Your task to perform on an android device: Open Chrome and go to settings Image 0: 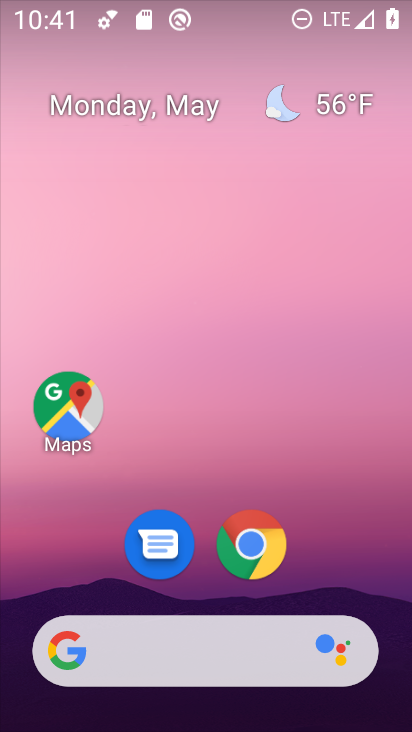
Step 0: click (252, 543)
Your task to perform on an android device: Open Chrome and go to settings Image 1: 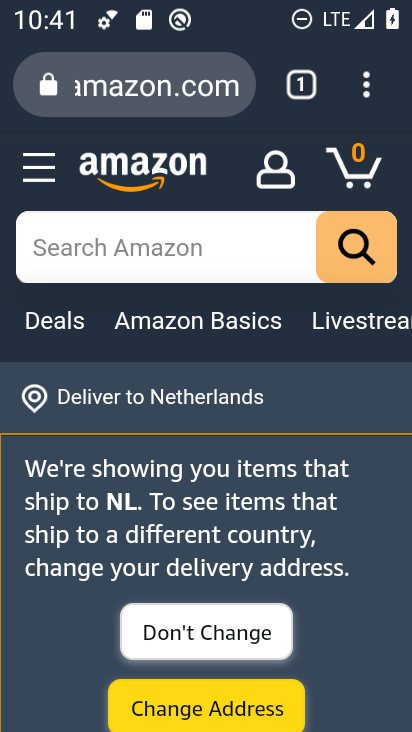
Step 1: click (366, 84)
Your task to perform on an android device: Open Chrome and go to settings Image 2: 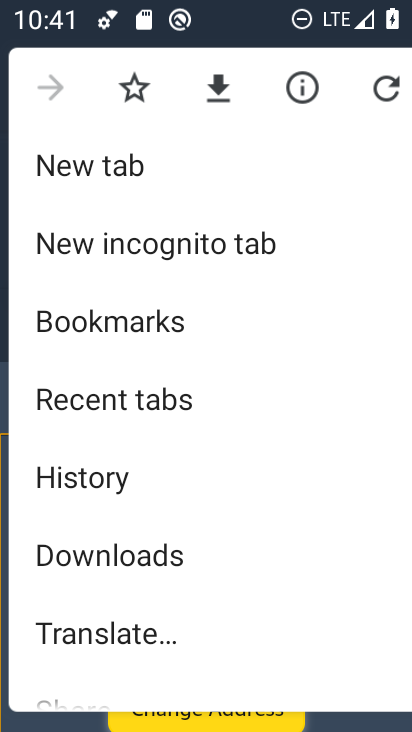
Step 2: drag from (168, 491) to (192, 337)
Your task to perform on an android device: Open Chrome and go to settings Image 3: 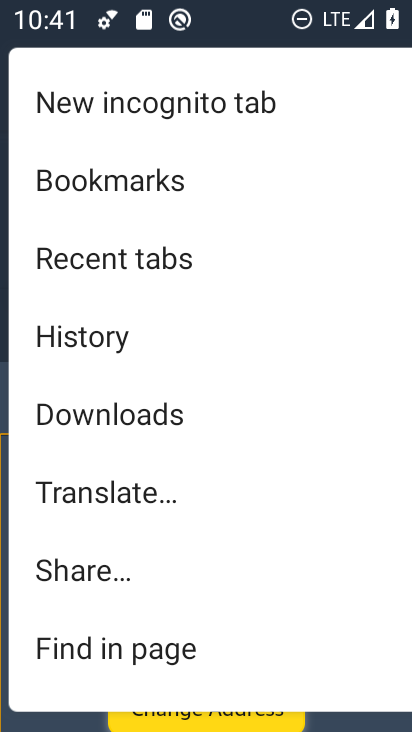
Step 3: drag from (135, 533) to (155, 440)
Your task to perform on an android device: Open Chrome and go to settings Image 4: 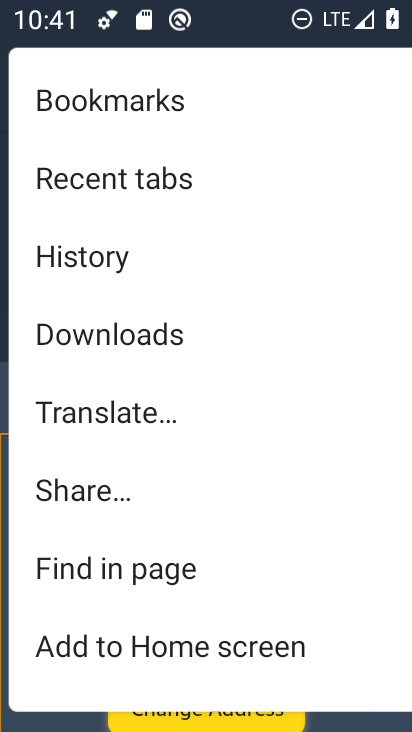
Step 4: drag from (96, 590) to (165, 468)
Your task to perform on an android device: Open Chrome and go to settings Image 5: 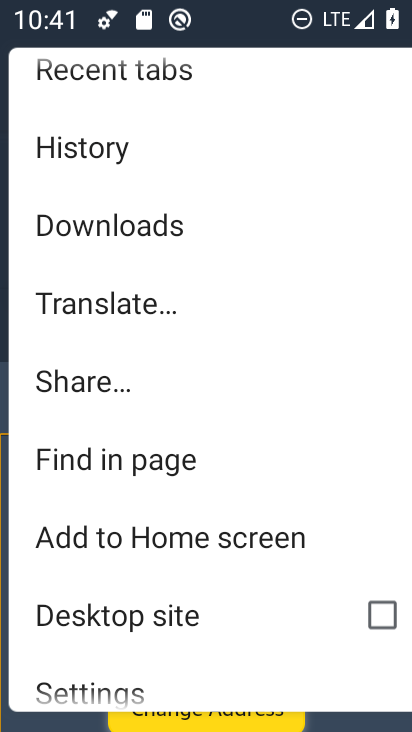
Step 5: drag from (114, 584) to (190, 442)
Your task to perform on an android device: Open Chrome and go to settings Image 6: 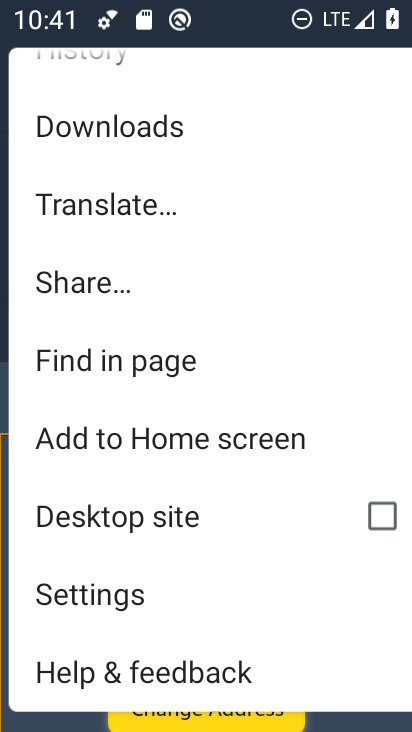
Step 6: click (89, 595)
Your task to perform on an android device: Open Chrome and go to settings Image 7: 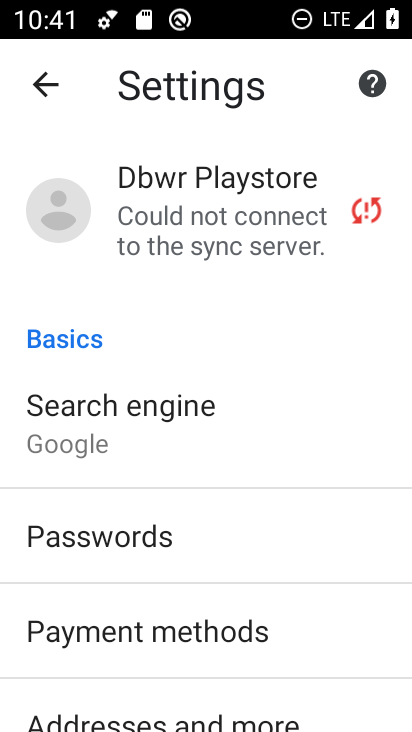
Step 7: task complete